Your task to perform on an android device: Open internet settings Image 0: 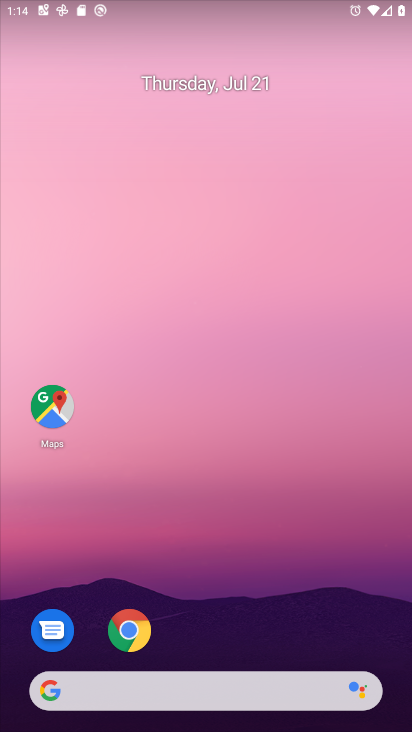
Step 0: drag from (186, 592) to (240, 129)
Your task to perform on an android device: Open internet settings Image 1: 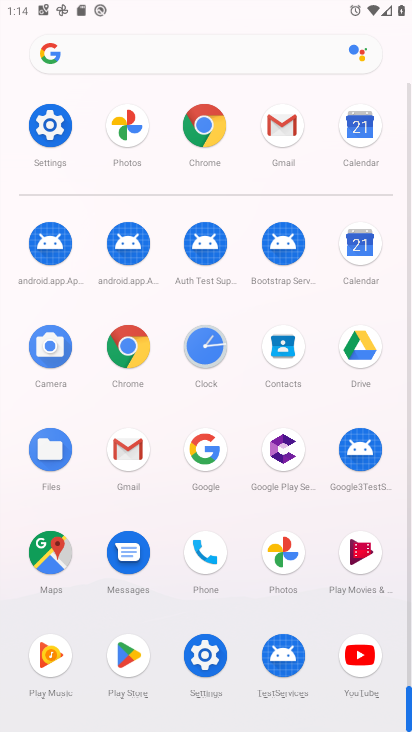
Step 1: click (201, 656)
Your task to perform on an android device: Open internet settings Image 2: 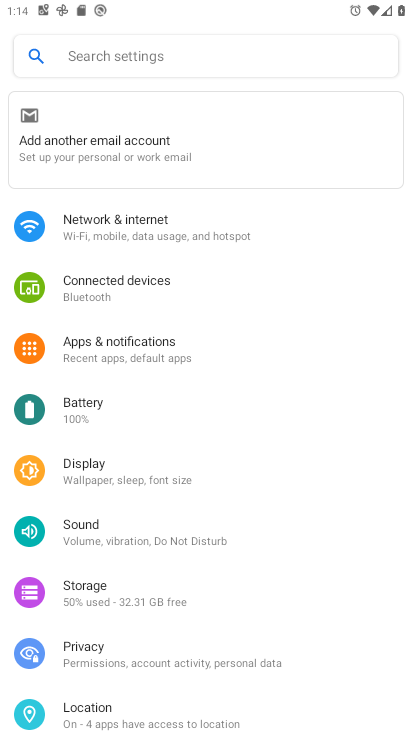
Step 2: click (122, 230)
Your task to perform on an android device: Open internet settings Image 3: 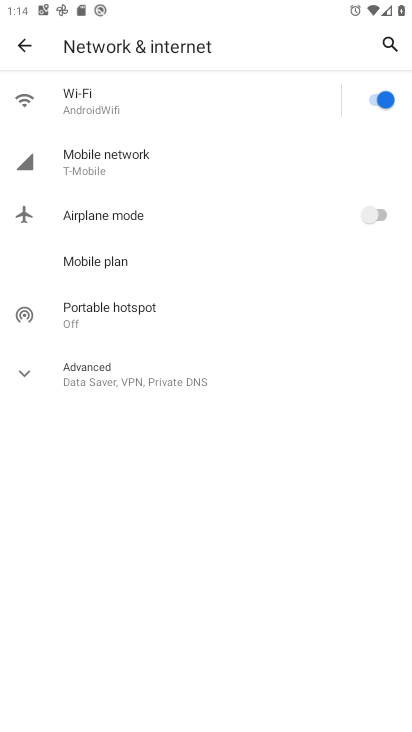
Step 3: task complete